Your task to perform on an android device: change the upload size in google photos Image 0: 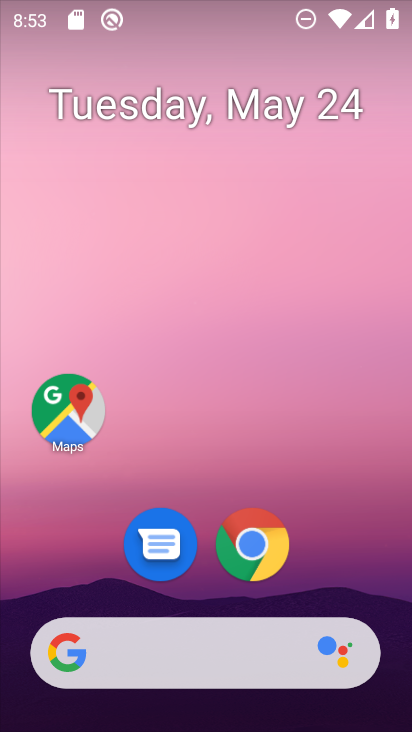
Step 0: type ""
Your task to perform on an android device: change the upload size in google photos Image 1: 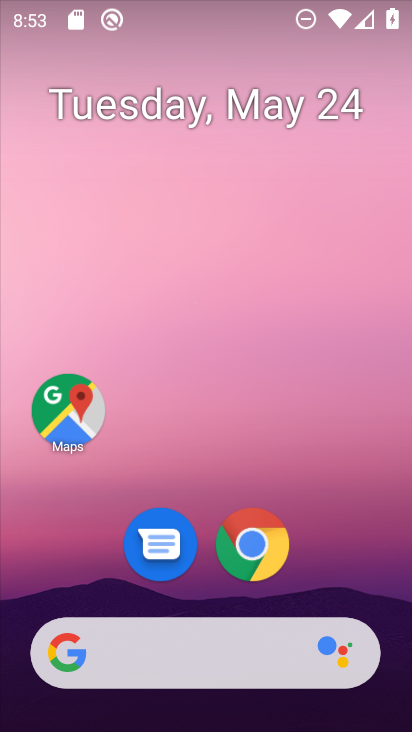
Step 1: drag from (370, 596) to (239, 15)
Your task to perform on an android device: change the upload size in google photos Image 2: 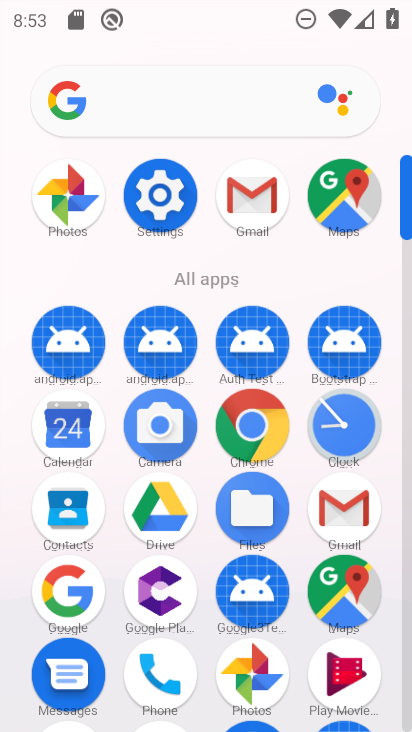
Step 2: click (58, 186)
Your task to perform on an android device: change the upload size in google photos Image 3: 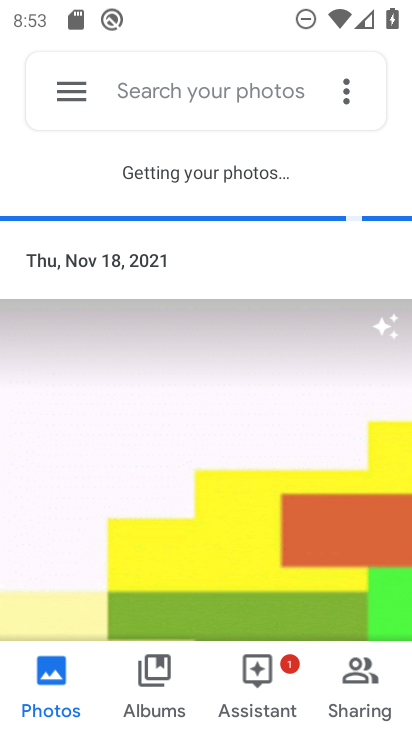
Step 3: click (69, 94)
Your task to perform on an android device: change the upload size in google photos Image 4: 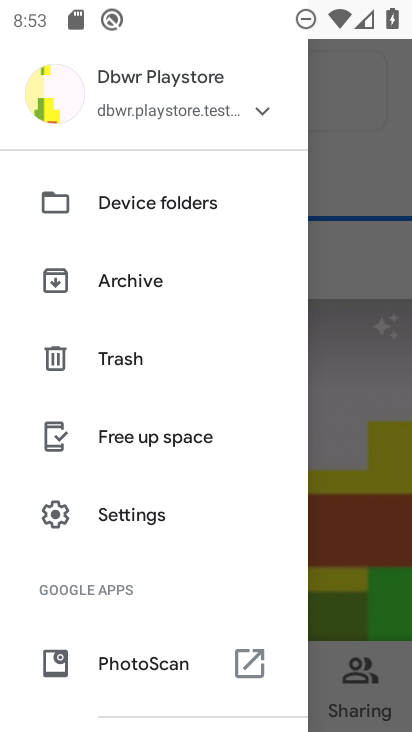
Step 4: click (152, 517)
Your task to perform on an android device: change the upload size in google photos Image 5: 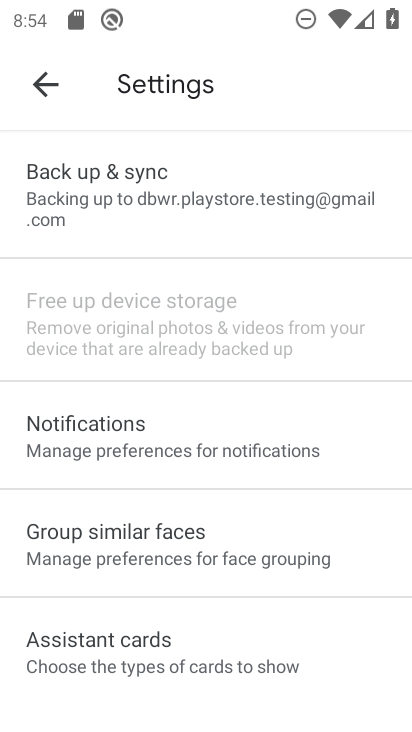
Step 5: click (190, 178)
Your task to perform on an android device: change the upload size in google photos Image 6: 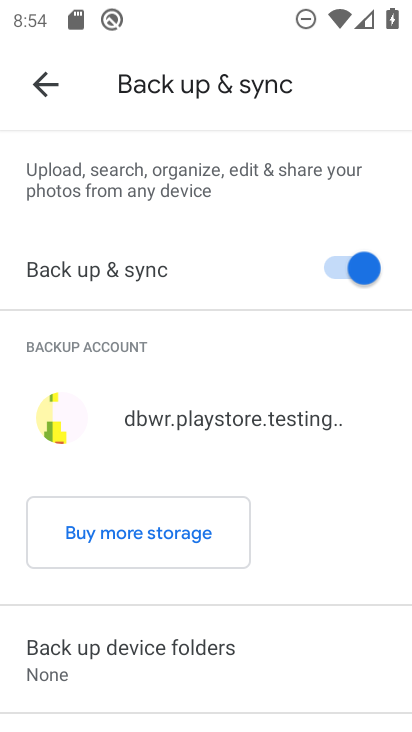
Step 6: drag from (300, 640) to (188, 190)
Your task to perform on an android device: change the upload size in google photos Image 7: 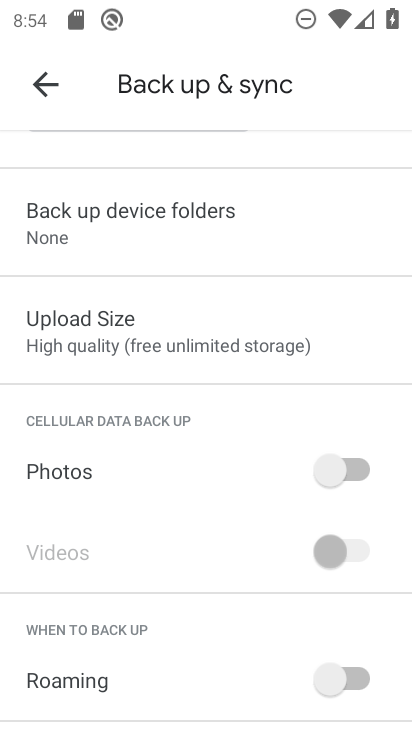
Step 7: click (141, 325)
Your task to perform on an android device: change the upload size in google photos Image 8: 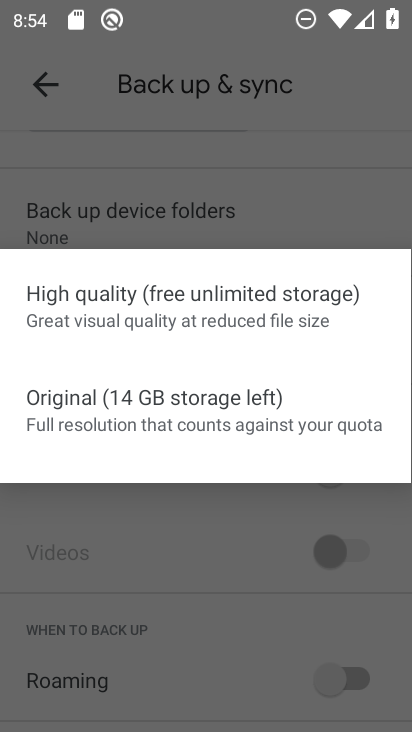
Step 8: click (165, 394)
Your task to perform on an android device: change the upload size in google photos Image 9: 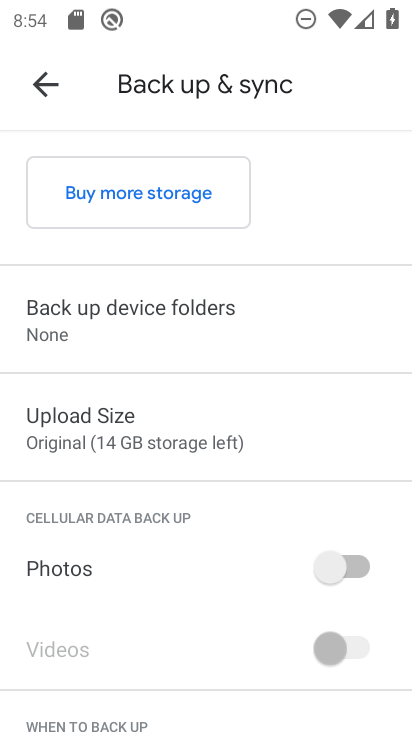
Step 9: task complete